Your task to perform on an android device: Open settings Image 0: 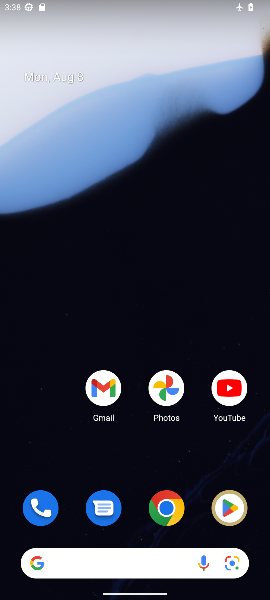
Step 0: drag from (136, 477) to (152, 8)
Your task to perform on an android device: Open settings Image 1: 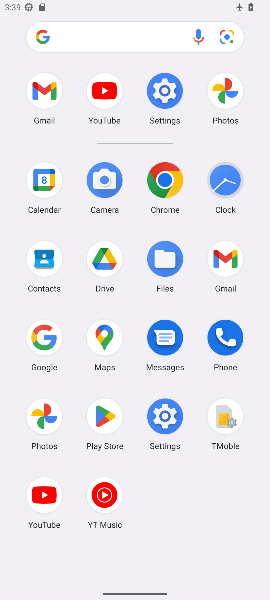
Step 1: click (165, 89)
Your task to perform on an android device: Open settings Image 2: 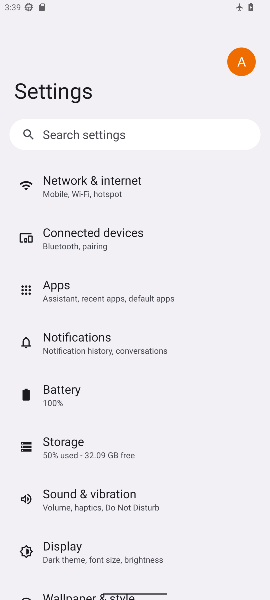
Step 2: task complete